Your task to perform on an android device: Go to privacy settings Image 0: 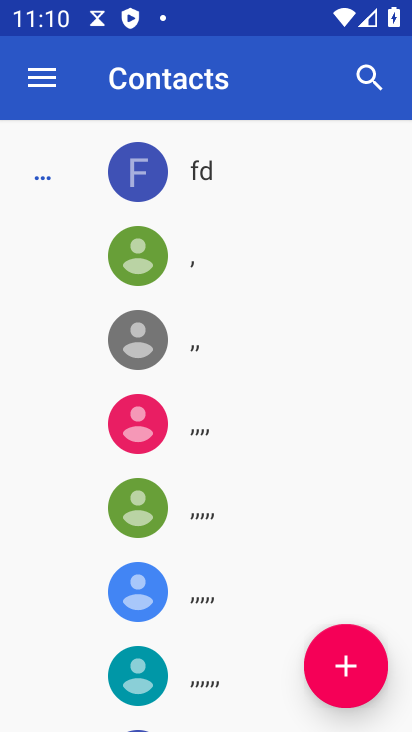
Step 0: press home button
Your task to perform on an android device: Go to privacy settings Image 1: 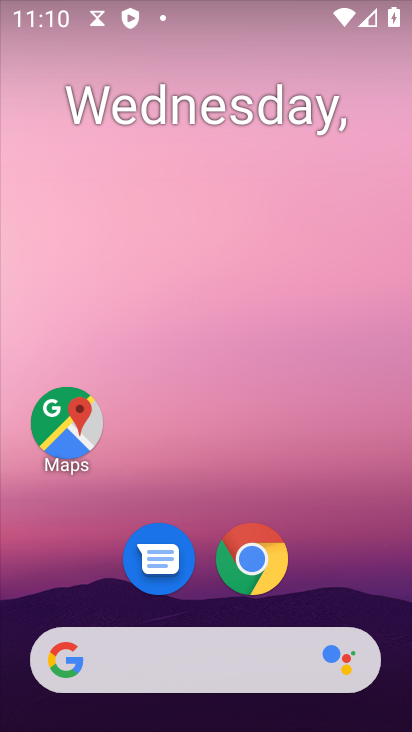
Step 1: drag from (387, 596) to (312, 332)
Your task to perform on an android device: Go to privacy settings Image 2: 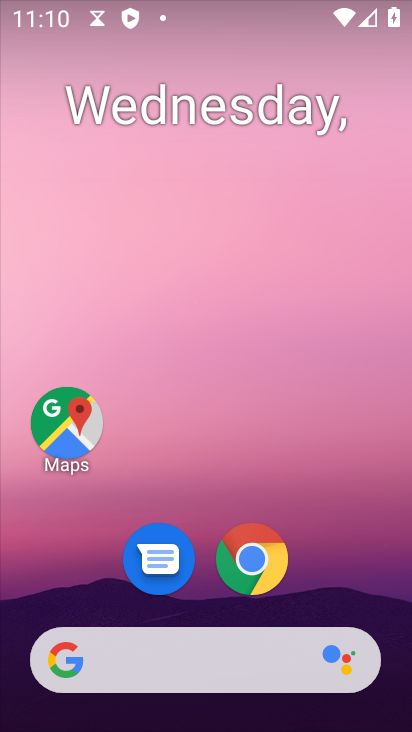
Step 2: drag from (323, 580) to (253, 319)
Your task to perform on an android device: Go to privacy settings Image 3: 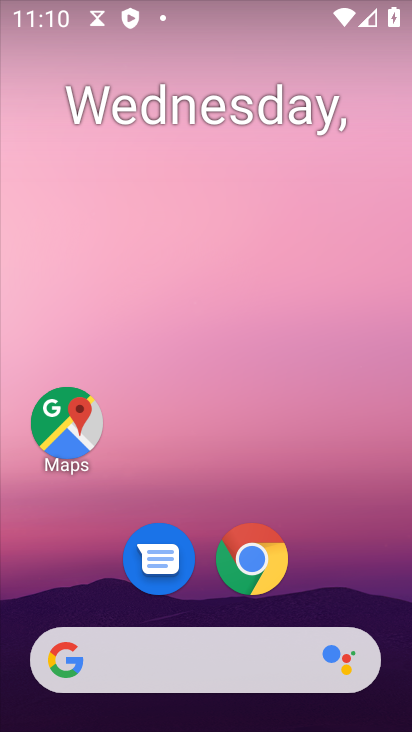
Step 3: drag from (359, 604) to (258, 90)
Your task to perform on an android device: Go to privacy settings Image 4: 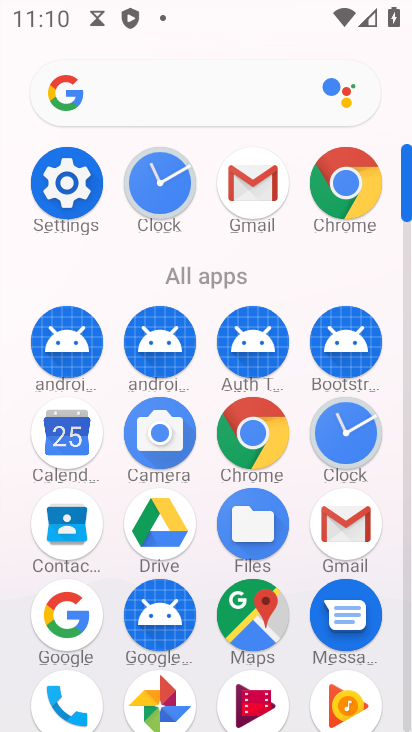
Step 4: click (88, 205)
Your task to perform on an android device: Go to privacy settings Image 5: 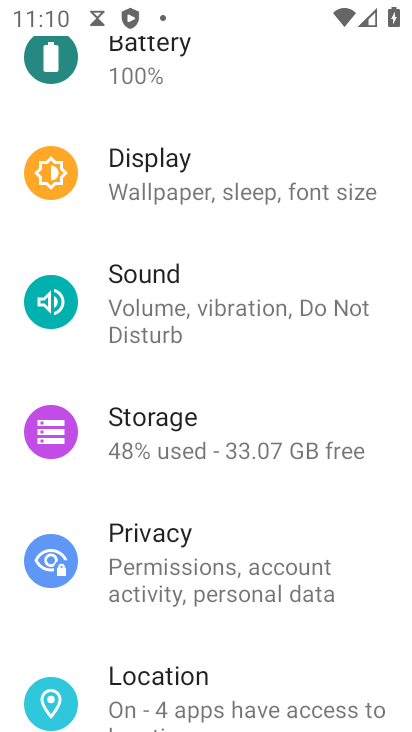
Step 5: click (163, 532)
Your task to perform on an android device: Go to privacy settings Image 6: 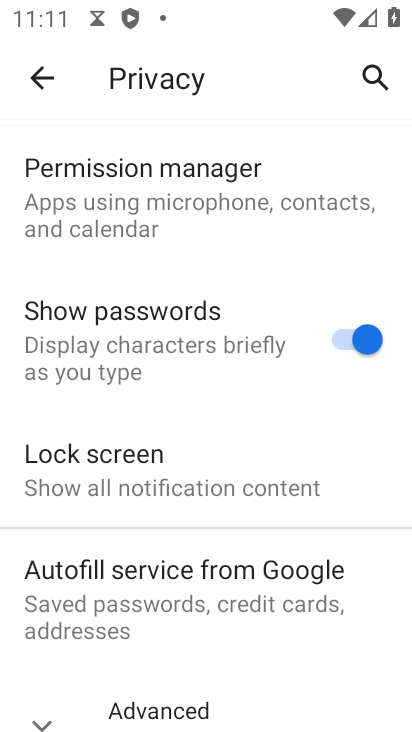
Step 6: task complete